Your task to perform on an android device: change the clock style Image 0: 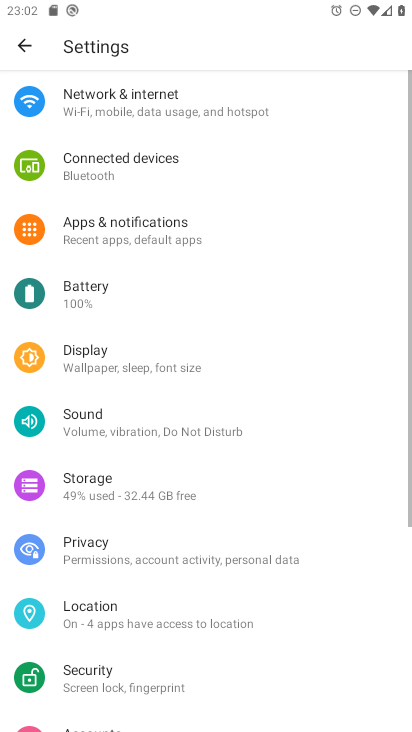
Step 0: press home button
Your task to perform on an android device: change the clock style Image 1: 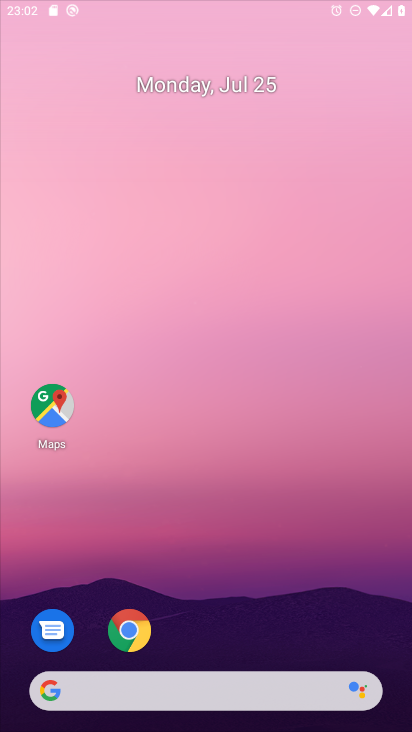
Step 1: drag from (324, 601) to (340, 95)
Your task to perform on an android device: change the clock style Image 2: 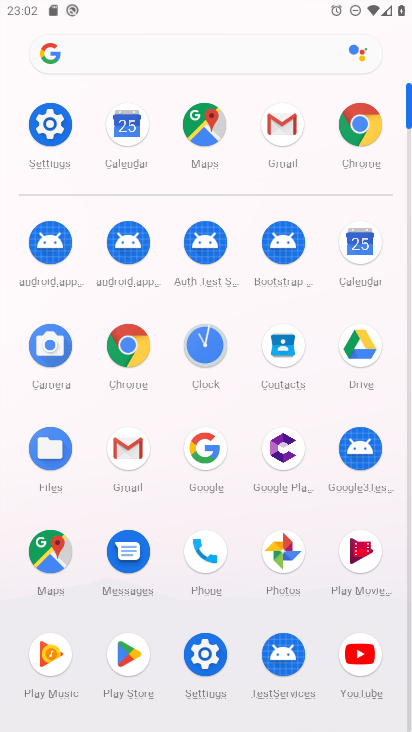
Step 2: click (204, 339)
Your task to perform on an android device: change the clock style Image 3: 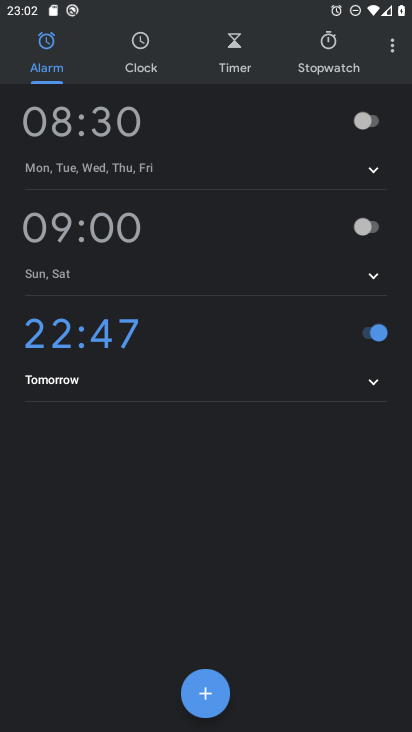
Step 3: click (392, 46)
Your task to perform on an android device: change the clock style Image 4: 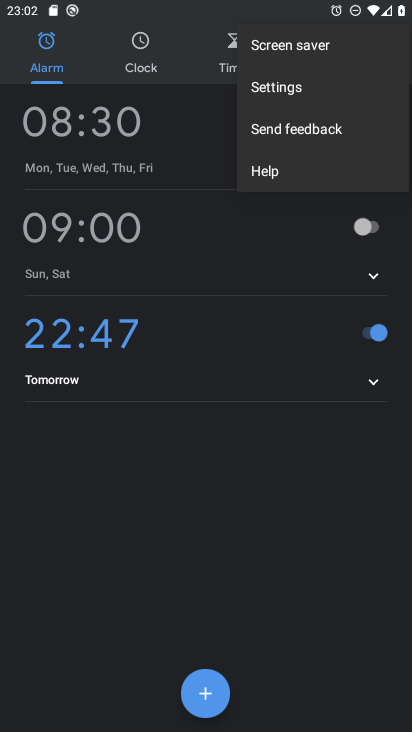
Step 4: click (295, 96)
Your task to perform on an android device: change the clock style Image 5: 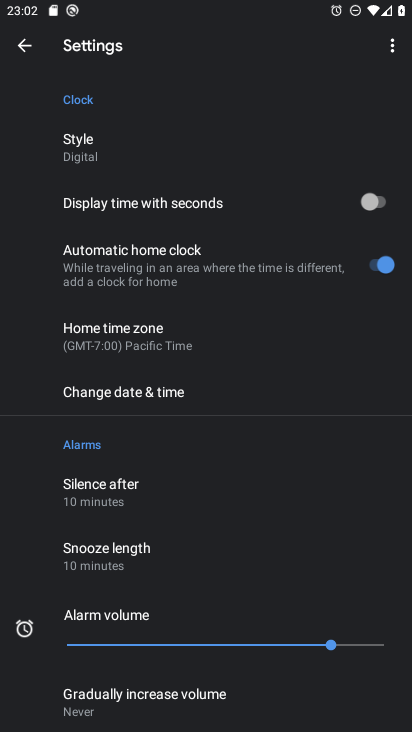
Step 5: click (140, 151)
Your task to perform on an android device: change the clock style Image 6: 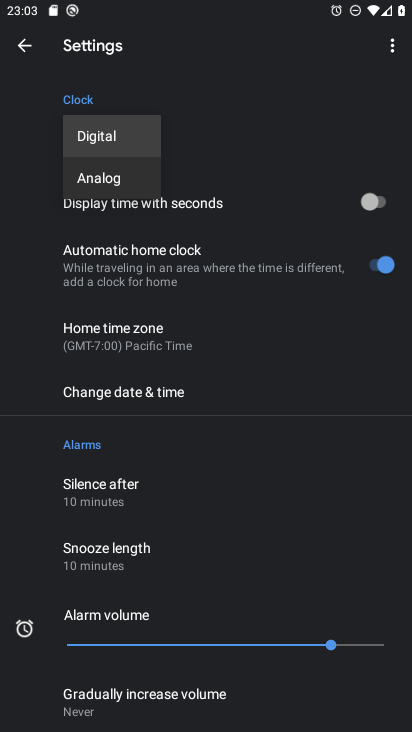
Step 6: click (125, 181)
Your task to perform on an android device: change the clock style Image 7: 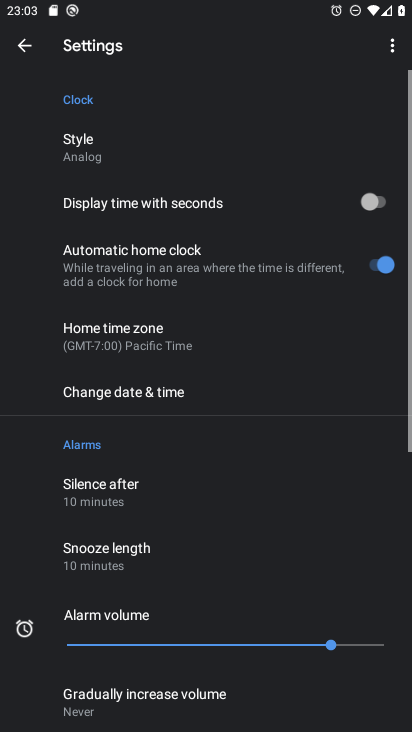
Step 7: task complete